Your task to perform on an android device: move a message to another label in the gmail app Image 0: 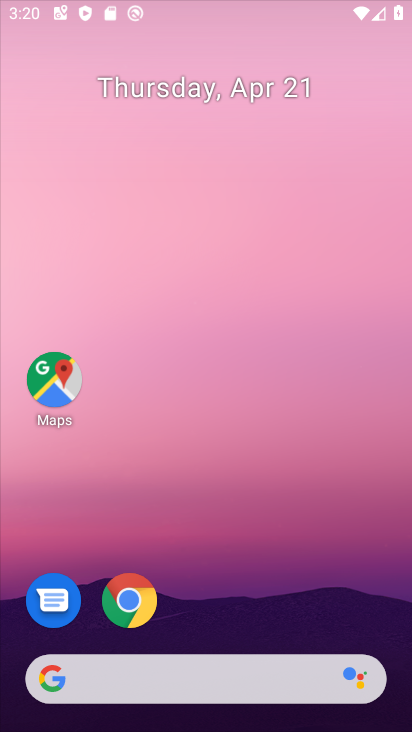
Step 0: drag from (318, 510) to (376, 105)
Your task to perform on an android device: move a message to another label in the gmail app Image 1: 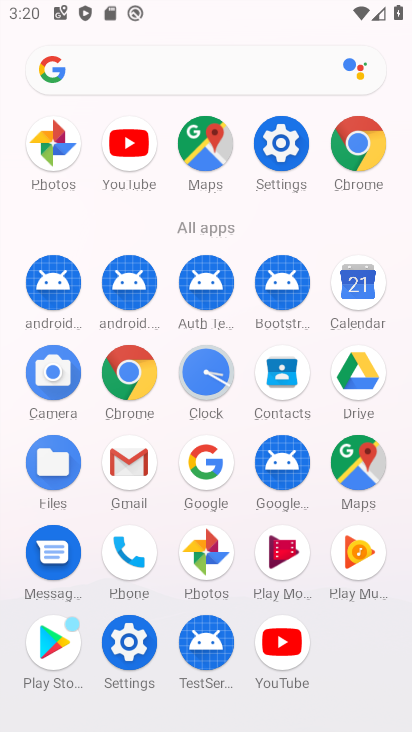
Step 1: click (116, 474)
Your task to perform on an android device: move a message to another label in the gmail app Image 2: 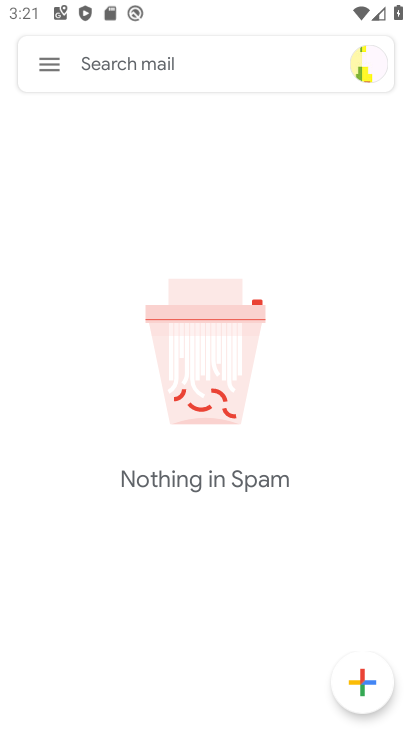
Step 2: click (52, 50)
Your task to perform on an android device: move a message to another label in the gmail app Image 3: 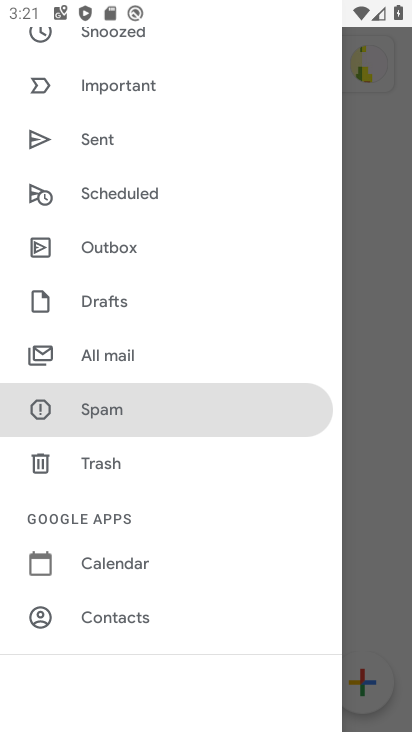
Step 3: click (173, 349)
Your task to perform on an android device: move a message to another label in the gmail app Image 4: 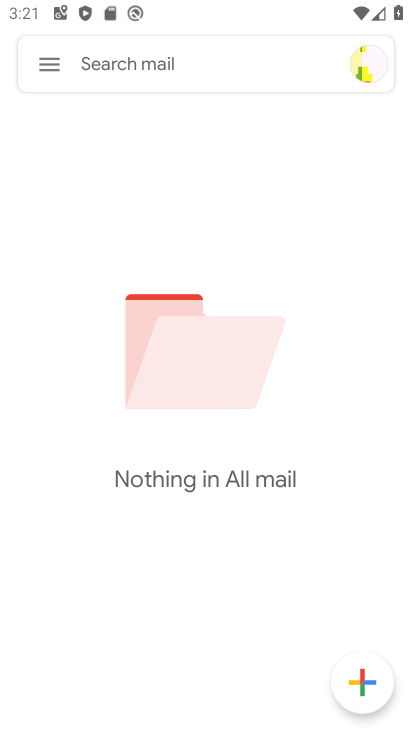
Step 4: task complete